Your task to perform on an android device: turn notification dots off Image 0: 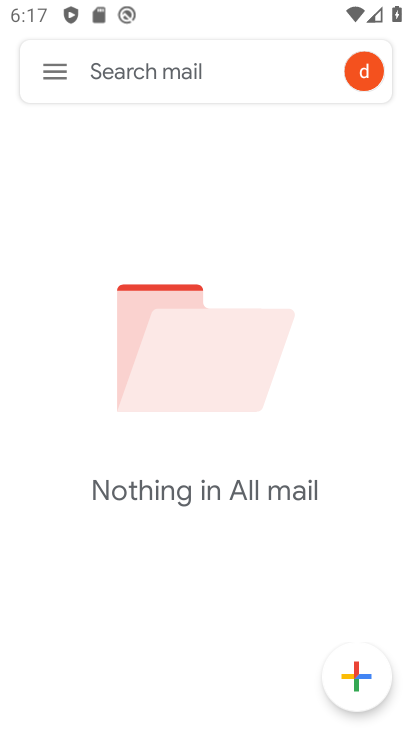
Step 0: press back button
Your task to perform on an android device: turn notification dots off Image 1: 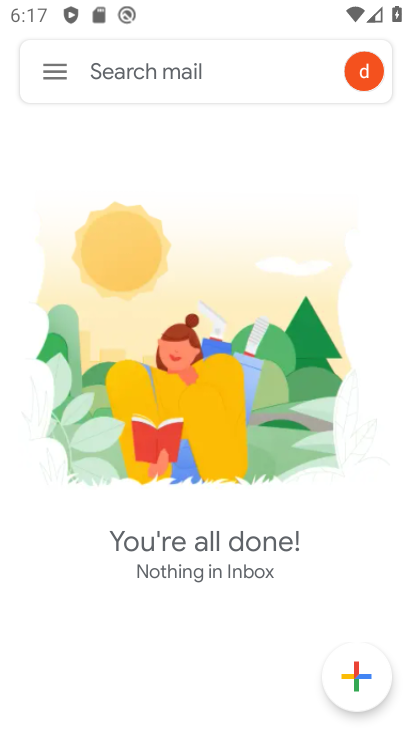
Step 1: press home button
Your task to perform on an android device: turn notification dots off Image 2: 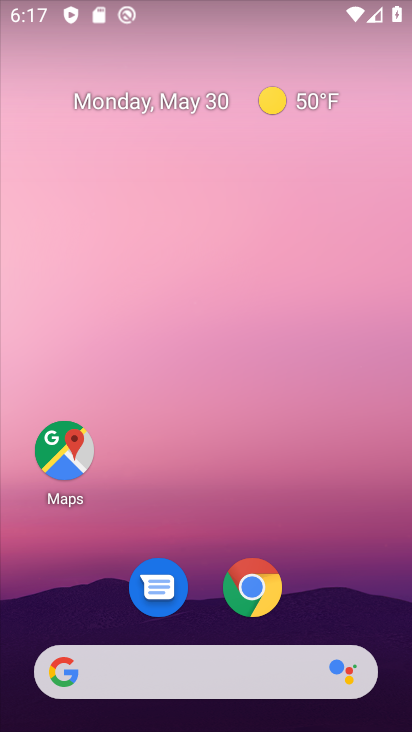
Step 2: drag from (330, 553) to (239, 44)
Your task to perform on an android device: turn notification dots off Image 3: 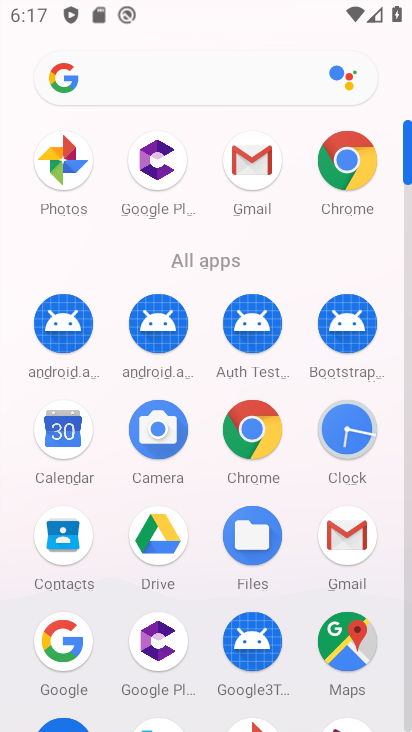
Step 3: drag from (9, 564) to (3, 260)
Your task to perform on an android device: turn notification dots off Image 4: 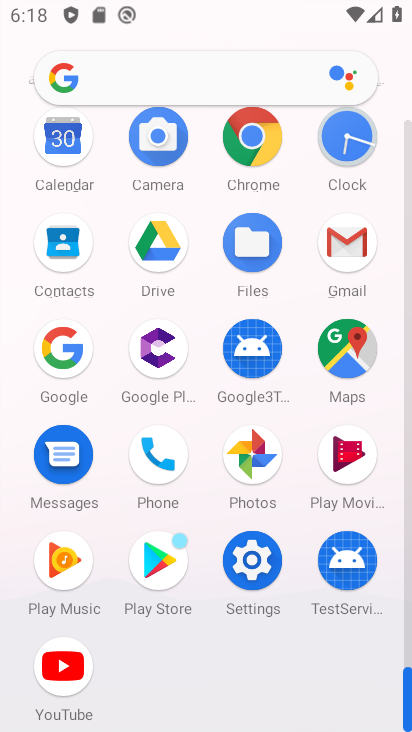
Step 4: click (251, 559)
Your task to perform on an android device: turn notification dots off Image 5: 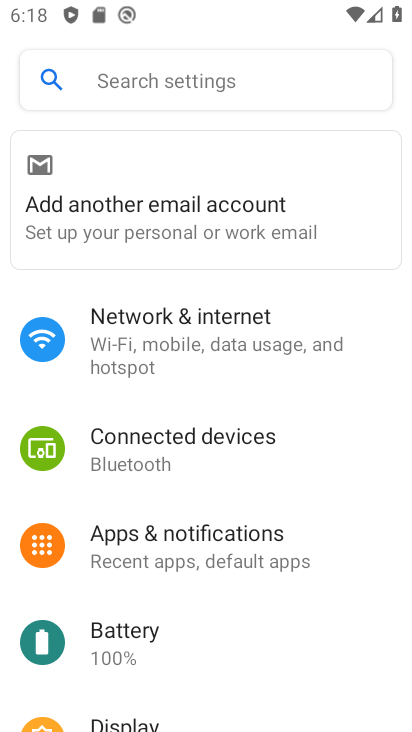
Step 5: click (211, 536)
Your task to perform on an android device: turn notification dots off Image 6: 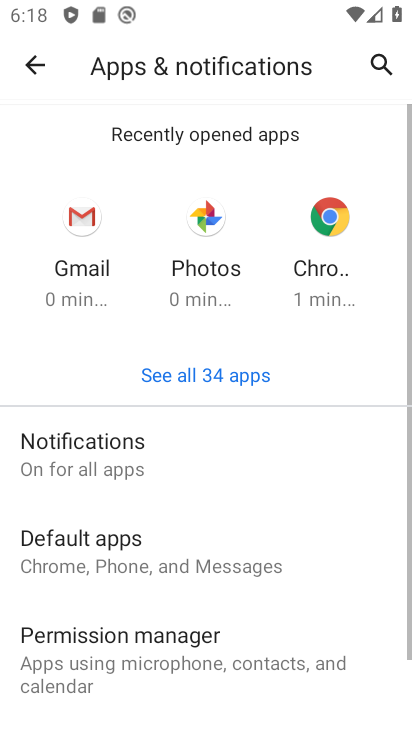
Step 6: click (142, 463)
Your task to perform on an android device: turn notification dots off Image 7: 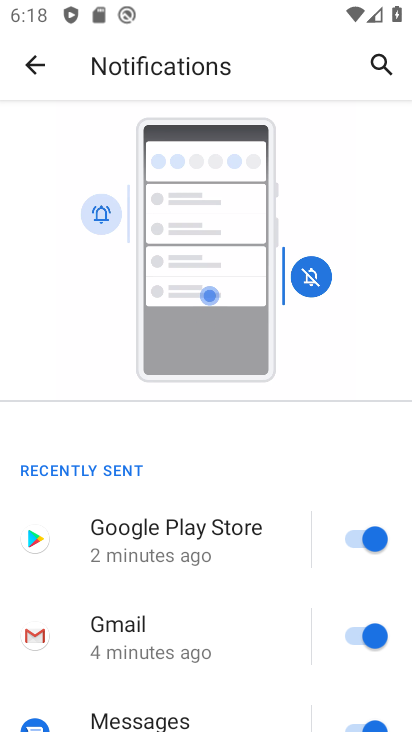
Step 7: drag from (183, 569) to (178, 138)
Your task to perform on an android device: turn notification dots off Image 8: 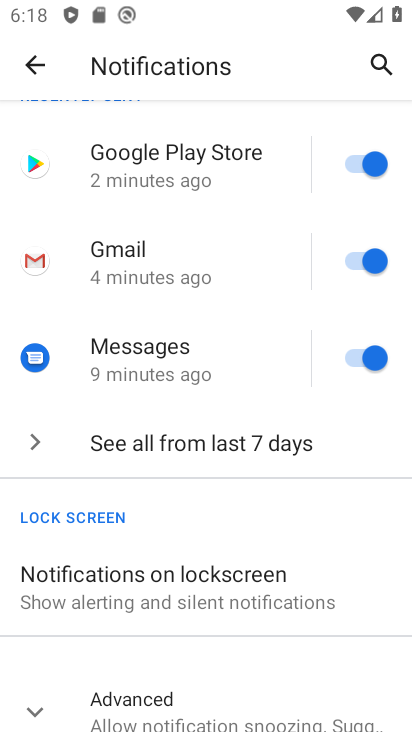
Step 8: drag from (172, 603) to (173, 192)
Your task to perform on an android device: turn notification dots off Image 9: 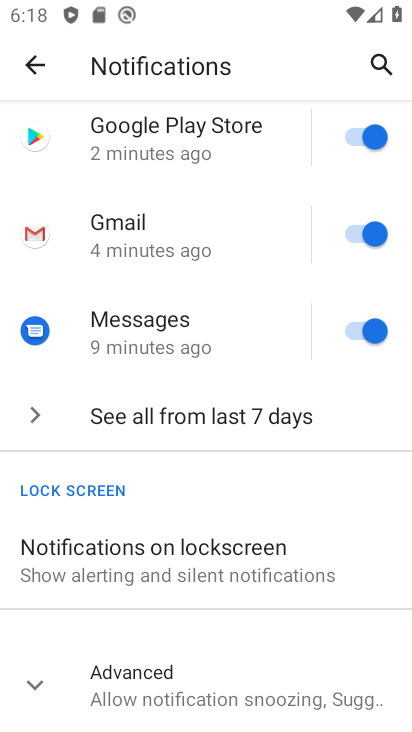
Step 9: click (105, 680)
Your task to perform on an android device: turn notification dots off Image 10: 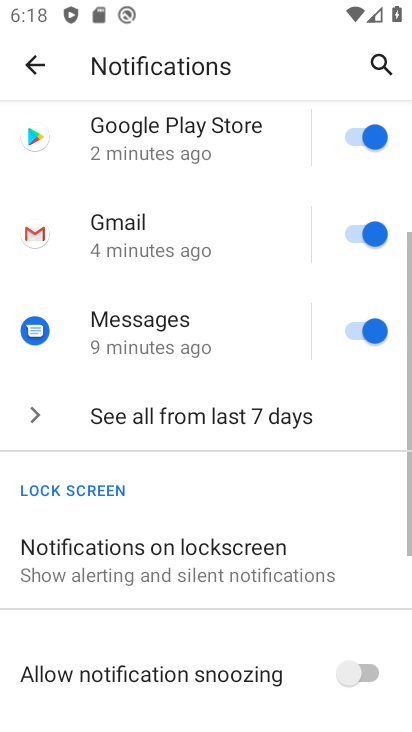
Step 10: drag from (245, 619) to (228, 218)
Your task to perform on an android device: turn notification dots off Image 11: 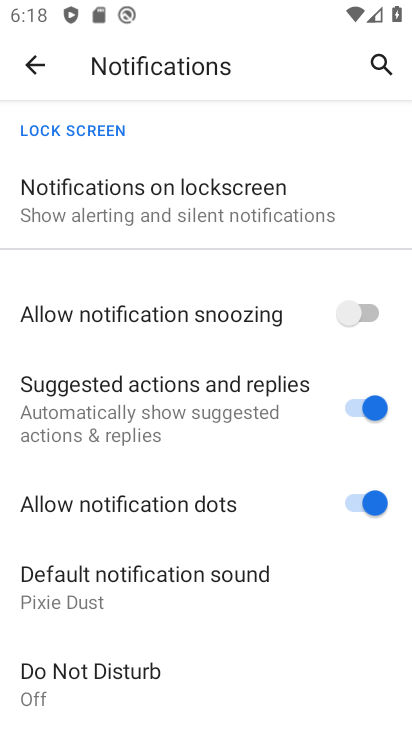
Step 11: click (372, 499)
Your task to perform on an android device: turn notification dots off Image 12: 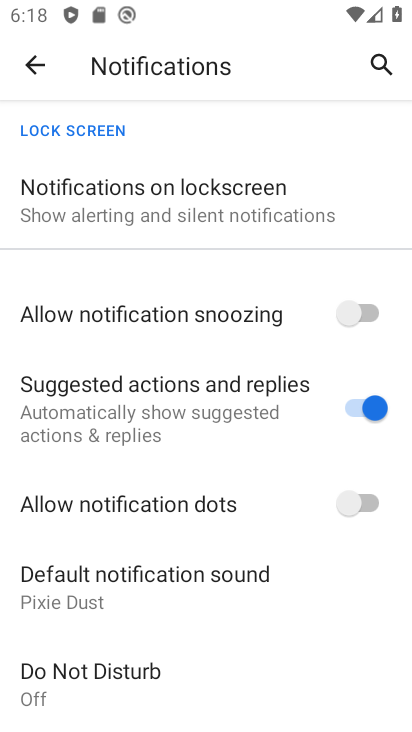
Step 12: task complete